Your task to perform on an android device: find photos in the google photos app Image 0: 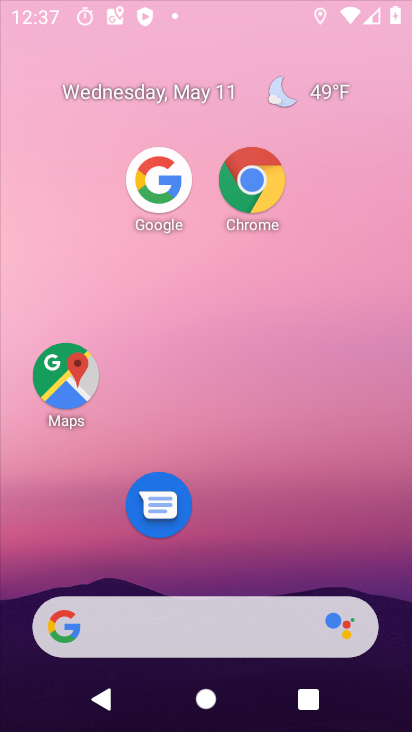
Step 0: press home button
Your task to perform on an android device: find photos in the google photos app Image 1: 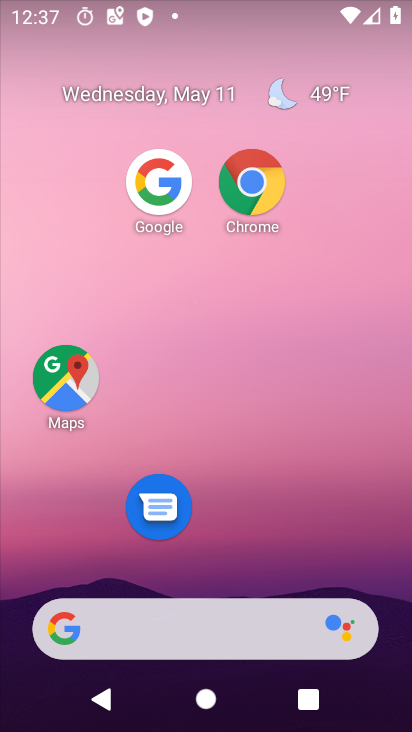
Step 1: drag from (279, 542) to (317, 63)
Your task to perform on an android device: find photos in the google photos app Image 2: 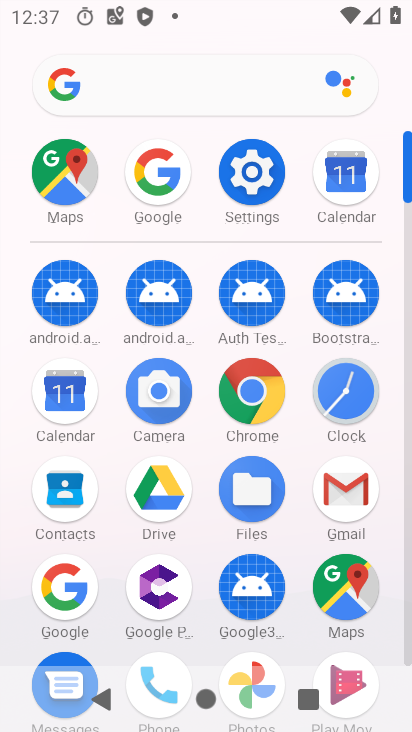
Step 2: drag from (188, 621) to (226, 316)
Your task to perform on an android device: find photos in the google photos app Image 3: 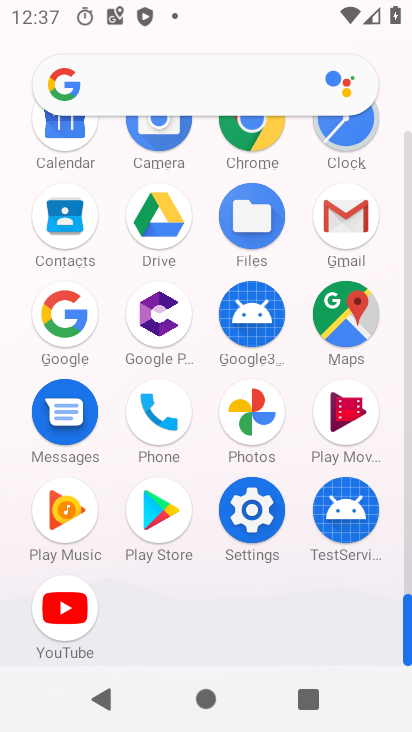
Step 3: click (256, 413)
Your task to perform on an android device: find photos in the google photos app Image 4: 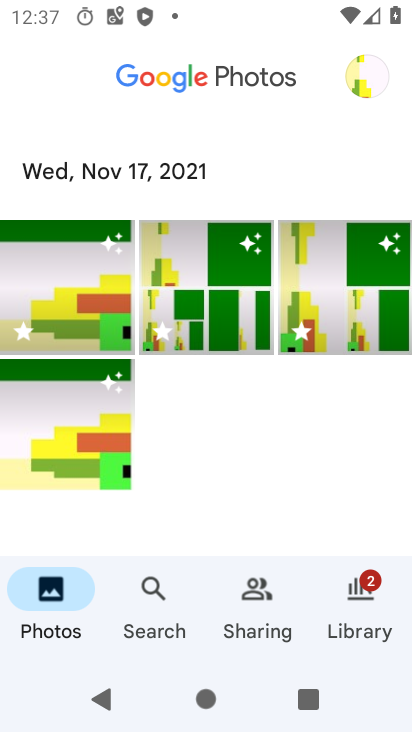
Step 4: task complete